Your task to perform on an android device: turn notification dots on Image 0: 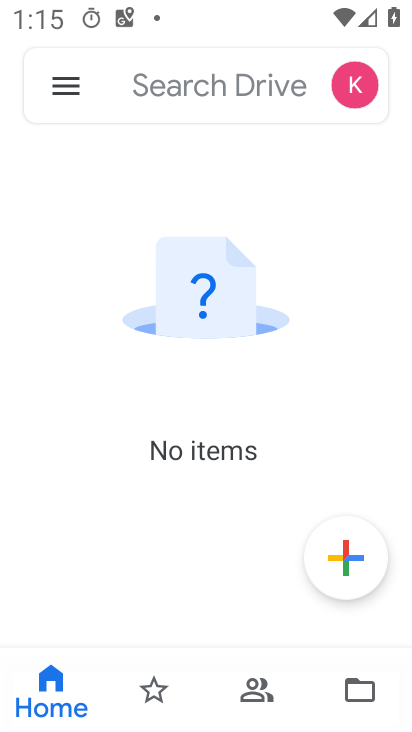
Step 0: press home button
Your task to perform on an android device: turn notification dots on Image 1: 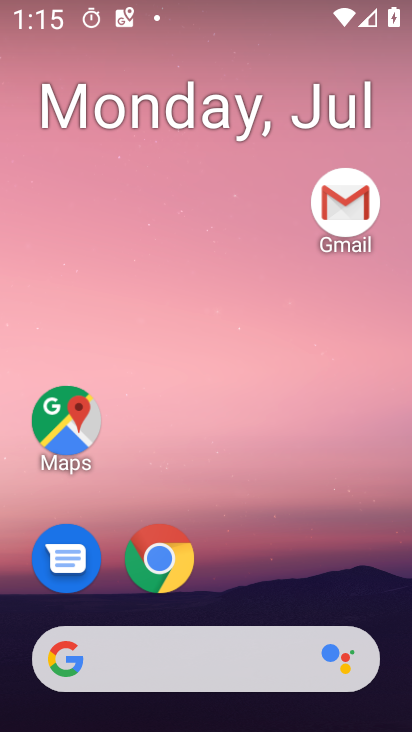
Step 1: drag from (317, 556) to (320, 52)
Your task to perform on an android device: turn notification dots on Image 2: 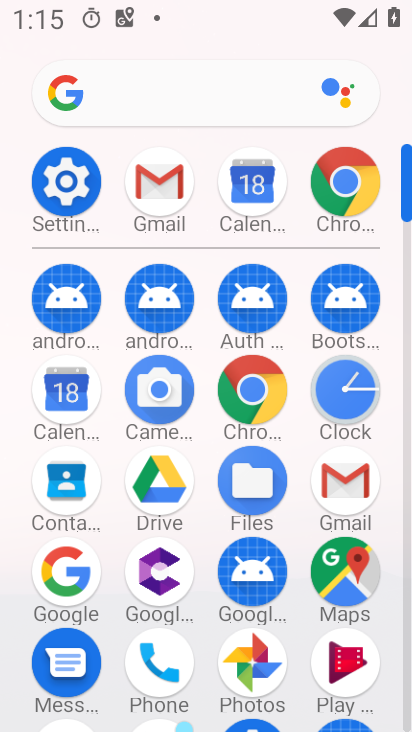
Step 2: click (78, 181)
Your task to perform on an android device: turn notification dots on Image 3: 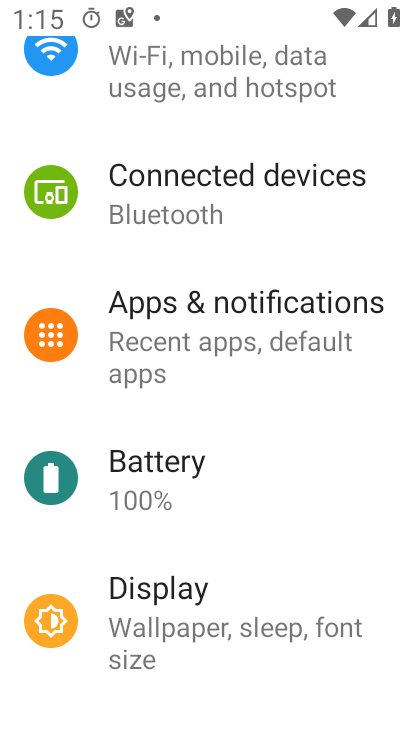
Step 3: drag from (360, 230) to (360, 297)
Your task to perform on an android device: turn notification dots on Image 4: 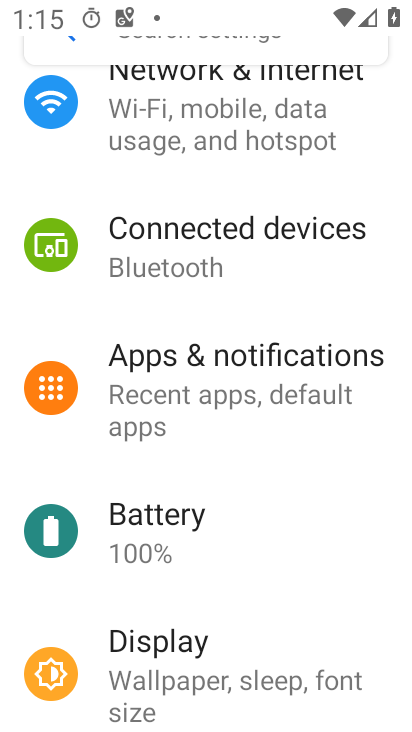
Step 4: drag from (376, 186) to (385, 298)
Your task to perform on an android device: turn notification dots on Image 5: 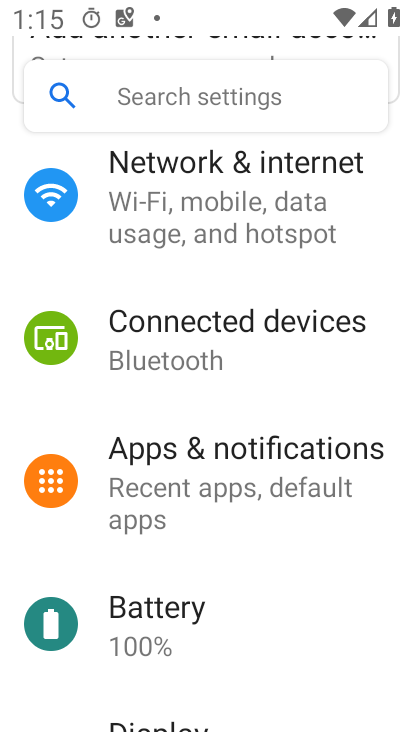
Step 5: drag from (382, 187) to (378, 318)
Your task to perform on an android device: turn notification dots on Image 6: 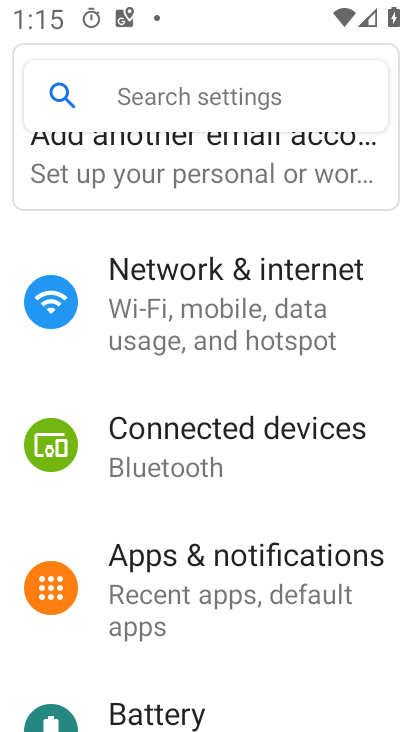
Step 6: drag from (369, 184) to (368, 368)
Your task to perform on an android device: turn notification dots on Image 7: 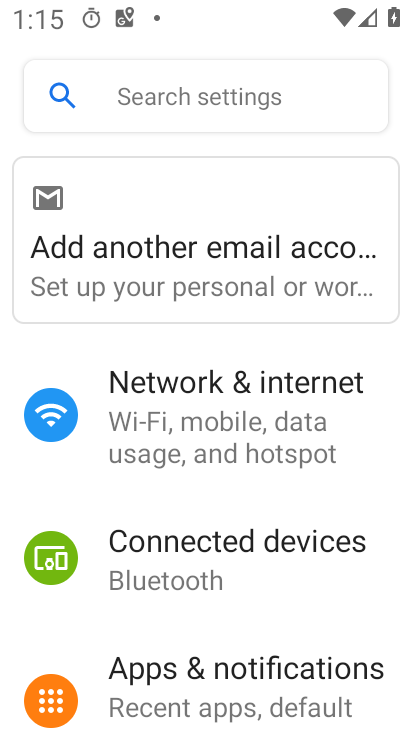
Step 7: drag from (381, 483) to (383, 391)
Your task to perform on an android device: turn notification dots on Image 8: 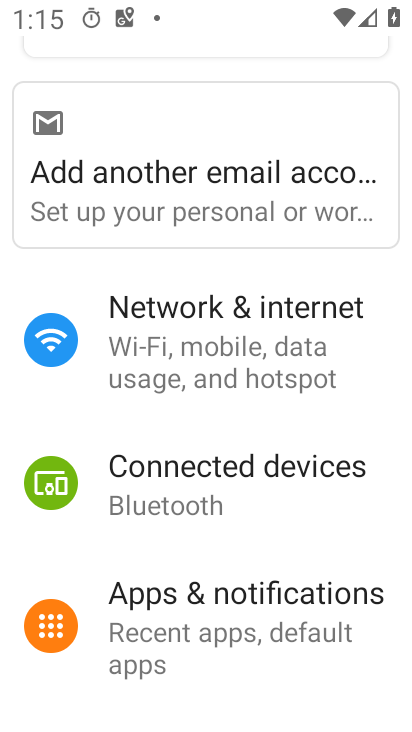
Step 8: drag from (362, 514) to (369, 421)
Your task to perform on an android device: turn notification dots on Image 9: 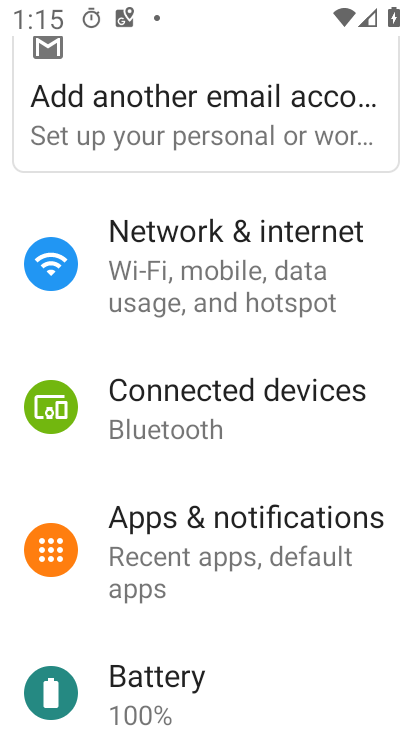
Step 9: drag from (361, 469) to (361, 374)
Your task to perform on an android device: turn notification dots on Image 10: 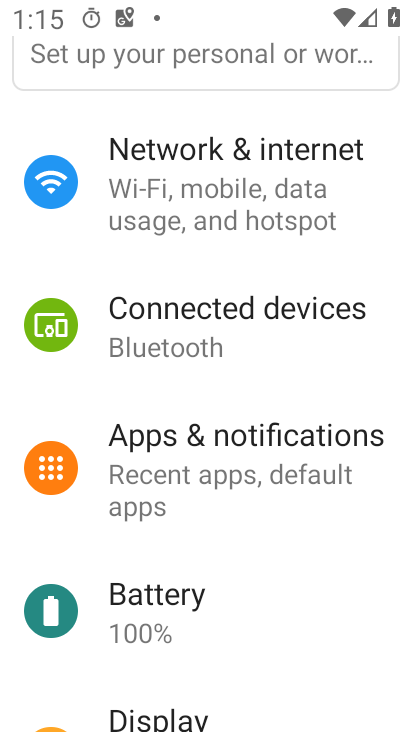
Step 10: drag from (356, 511) to (359, 411)
Your task to perform on an android device: turn notification dots on Image 11: 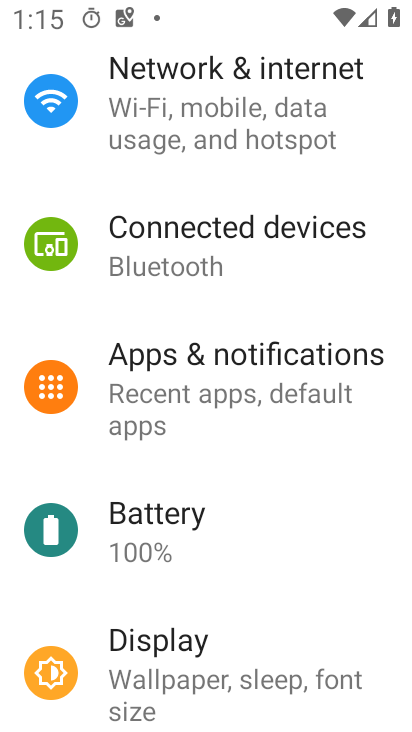
Step 11: drag from (333, 510) to (340, 425)
Your task to perform on an android device: turn notification dots on Image 12: 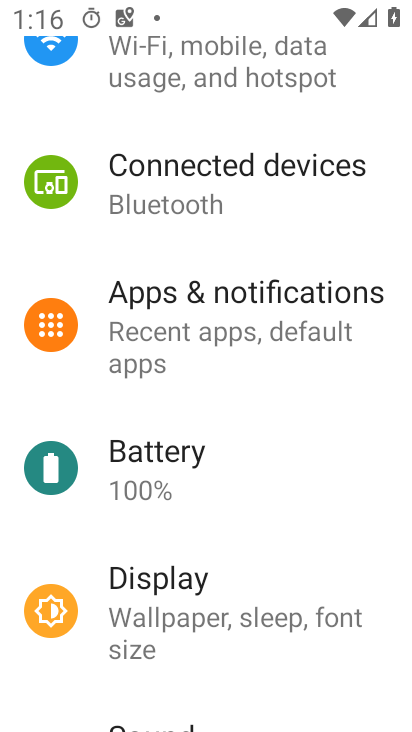
Step 12: click (261, 301)
Your task to perform on an android device: turn notification dots on Image 13: 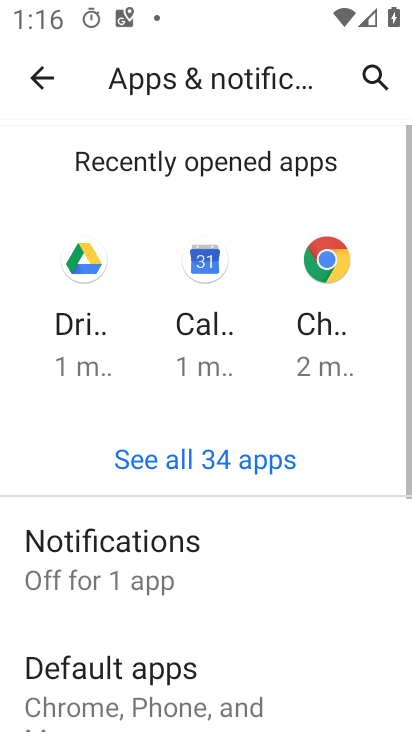
Step 13: drag from (327, 490) to (328, 405)
Your task to perform on an android device: turn notification dots on Image 14: 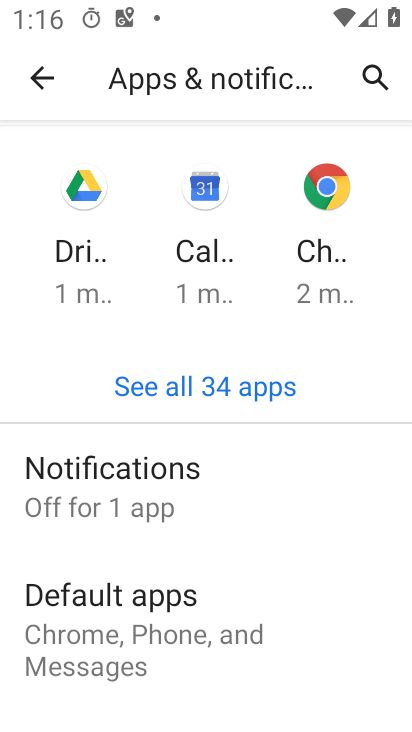
Step 14: drag from (331, 492) to (333, 385)
Your task to perform on an android device: turn notification dots on Image 15: 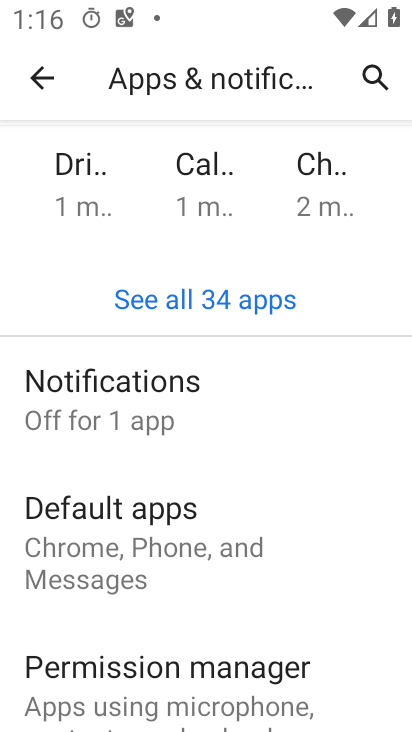
Step 15: drag from (329, 529) to (326, 397)
Your task to perform on an android device: turn notification dots on Image 16: 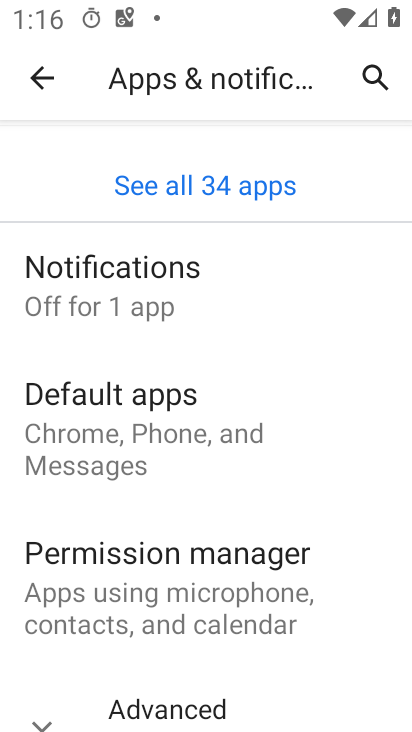
Step 16: drag from (329, 497) to (331, 342)
Your task to perform on an android device: turn notification dots on Image 17: 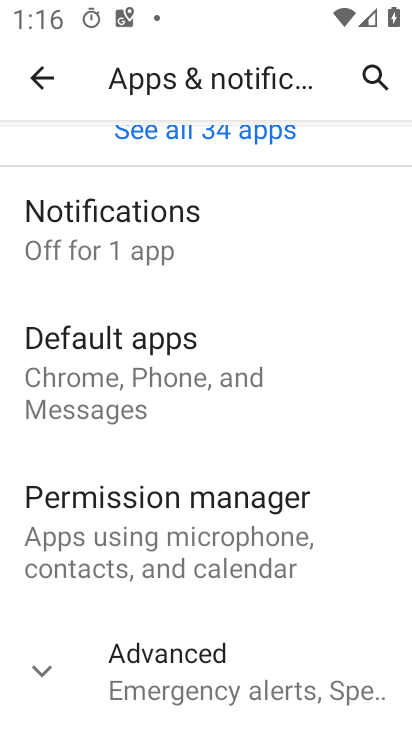
Step 17: click (160, 252)
Your task to perform on an android device: turn notification dots on Image 18: 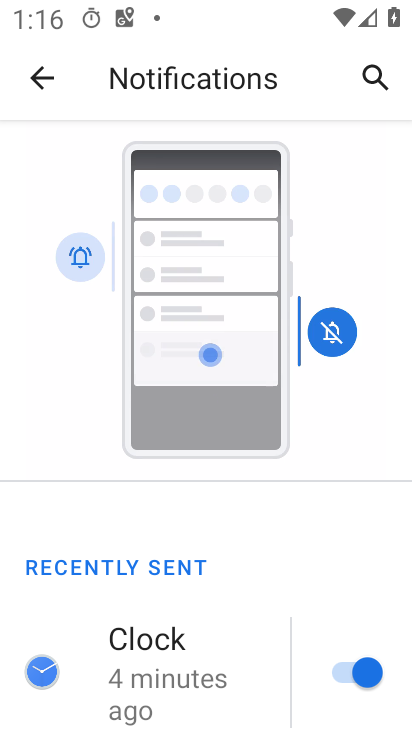
Step 18: drag from (301, 490) to (306, 355)
Your task to perform on an android device: turn notification dots on Image 19: 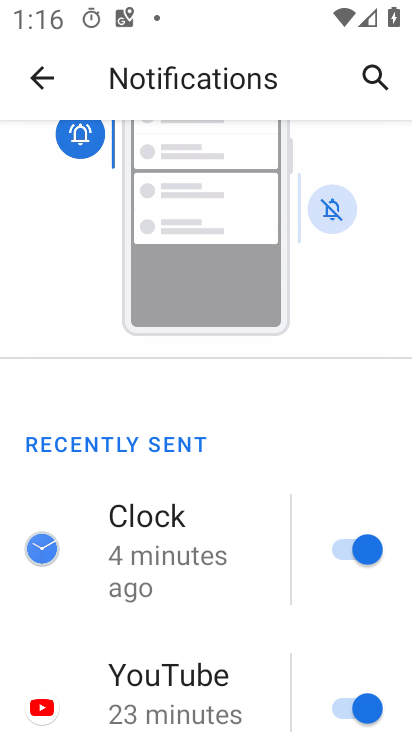
Step 19: drag from (237, 547) to (242, 428)
Your task to perform on an android device: turn notification dots on Image 20: 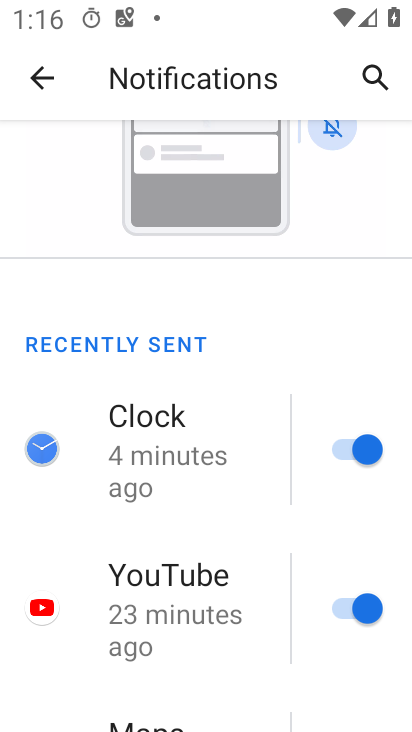
Step 20: drag from (251, 583) to (258, 446)
Your task to perform on an android device: turn notification dots on Image 21: 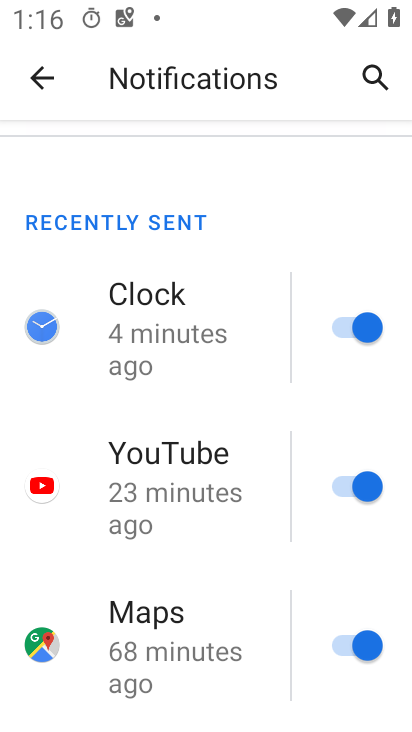
Step 21: drag from (241, 562) to (242, 468)
Your task to perform on an android device: turn notification dots on Image 22: 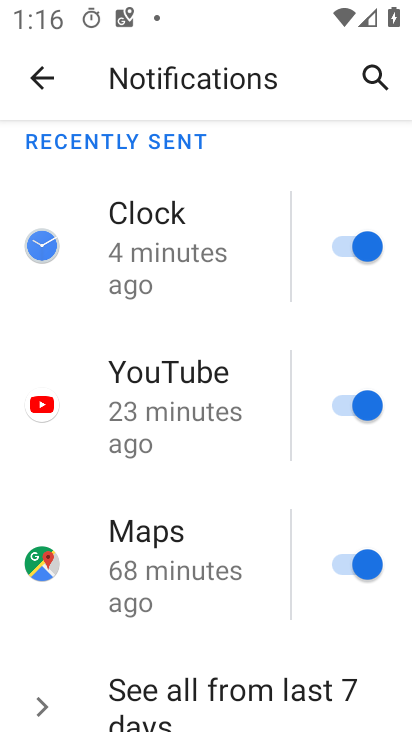
Step 22: drag from (247, 636) to (251, 491)
Your task to perform on an android device: turn notification dots on Image 23: 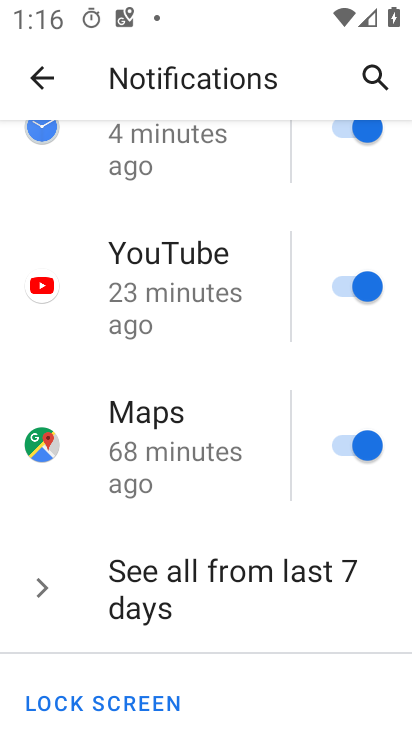
Step 23: drag from (263, 624) to (261, 483)
Your task to perform on an android device: turn notification dots on Image 24: 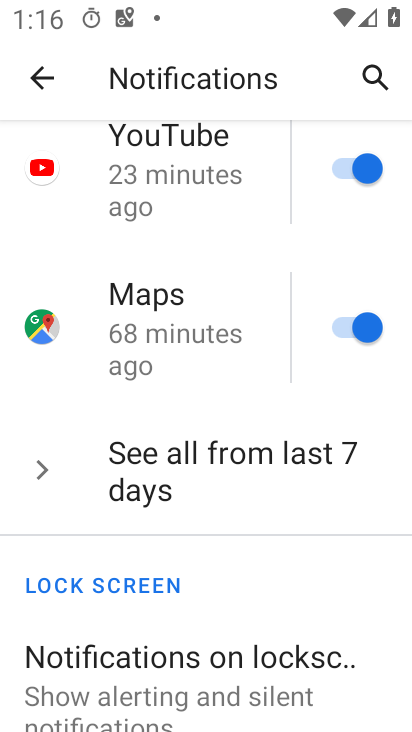
Step 24: drag from (246, 606) to (247, 461)
Your task to perform on an android device: turn notification dots on Image 25: 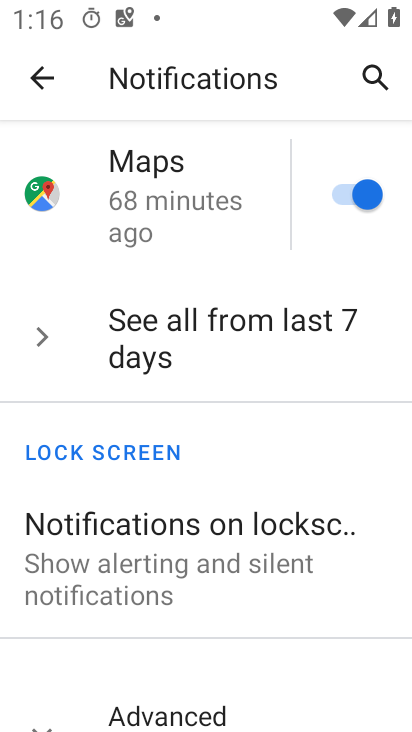
Step 25: drag from (248, 651) to (250, 450)
Your task to perform on an android device: turn notification dots on Image 26: 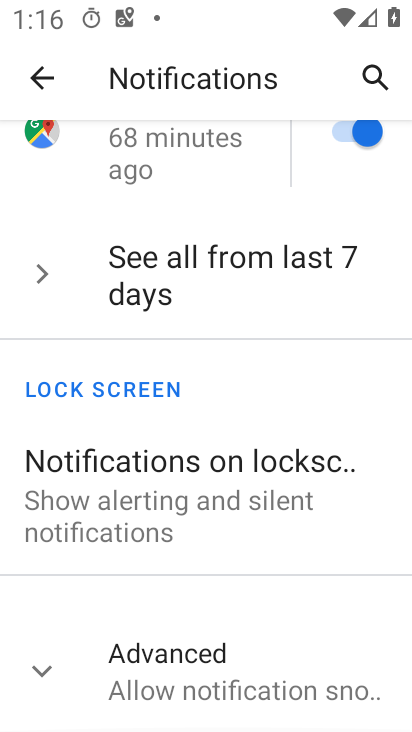
Step 26: click (250, 661)
Your task to perform on an android device: turn notification dots on Image 27: 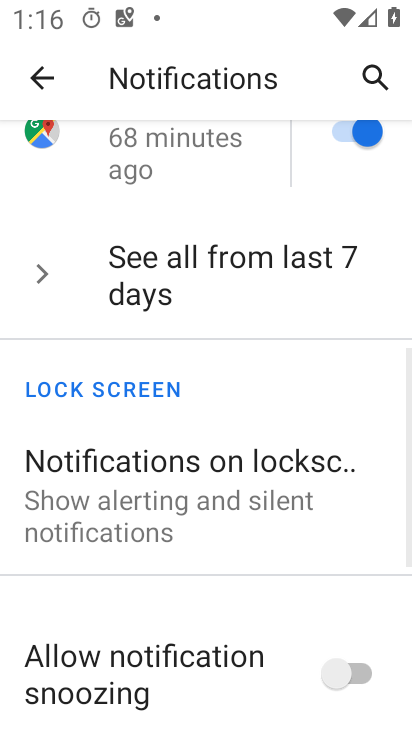
Step 27: task complete